Your task to perform on an android device: Open my contact list Image 0: 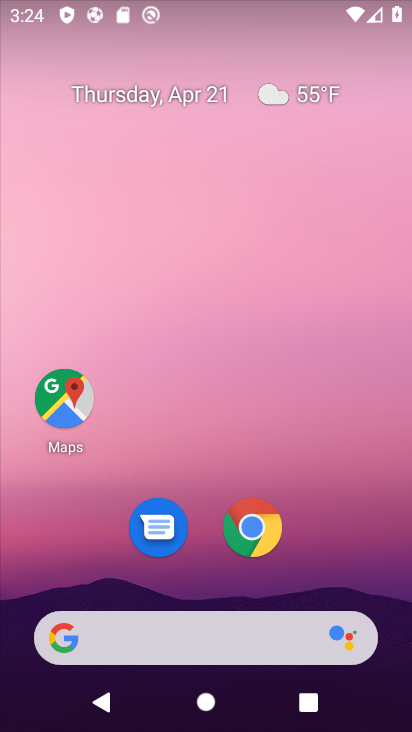
Step 0: drag from (371, 562) to (259, 130)
Your task to perform on an android device: Open my contact list Image 1: 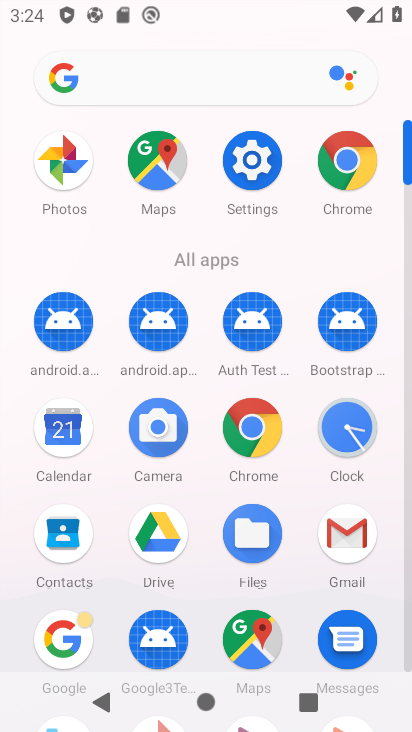
Step 1: click (72, 538)
Your task to perform on an android device: Open my contact list Image 2: 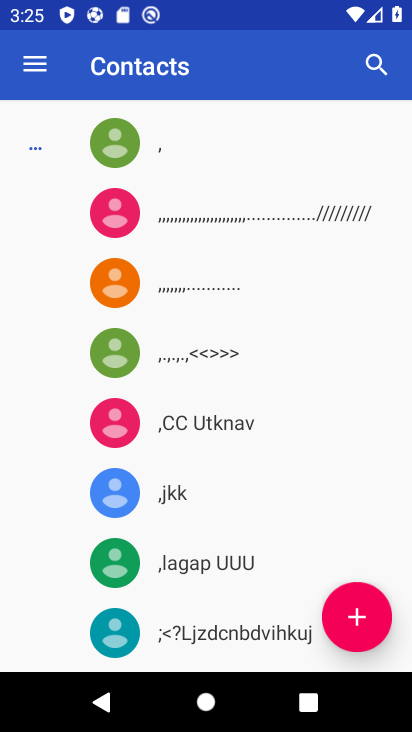
Step 2: task complete